Your task to perform on an android device: Go to battery settings Image 0: 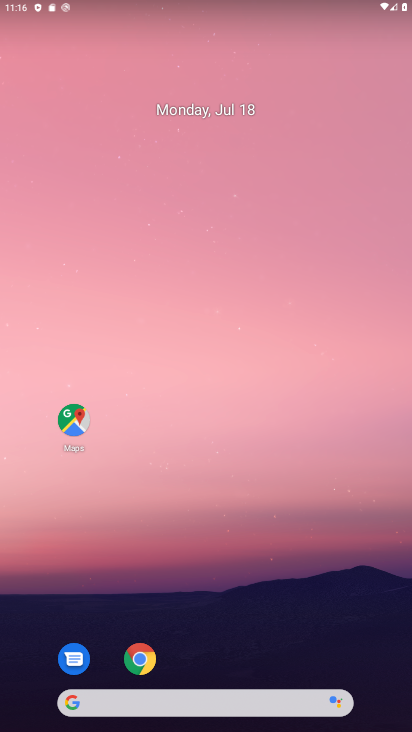
Step 0: drag from (274, 630) to (251, 98)
Your task to perform on an android device: Go to battery settings Image 1: 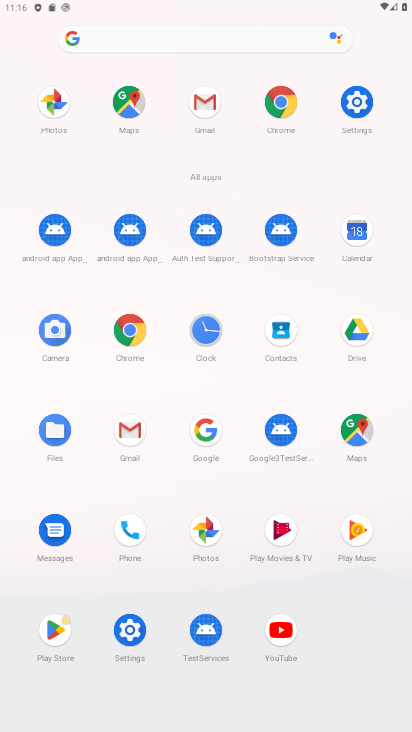
Step 1: click (350, 113)
Your task to perform on an android device: Go to battery settings Image 2: 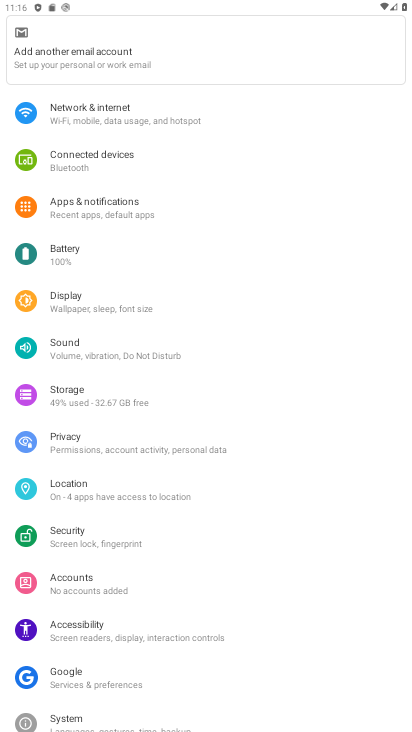
Step 2: click (110, 254)
Your task to perform on an android device: Go to battery settings Image 3: 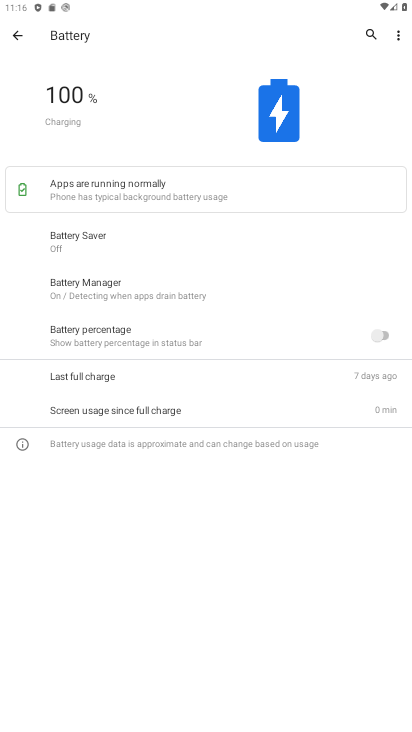
Step 3: task complete